Your task to perform on an android device: Open Youtube and go to "Your channel" Image 0: 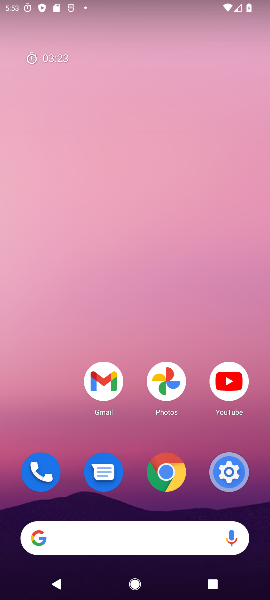
Step 0: press home button
Your task to perform on an android device: Open Youtube and go to "Your channel" Image 1: 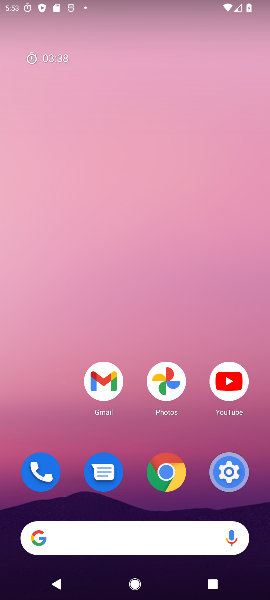
Step 1: press home button
Your task to perform on an android device: Open Youtube and go to "Your channel" Image 2: 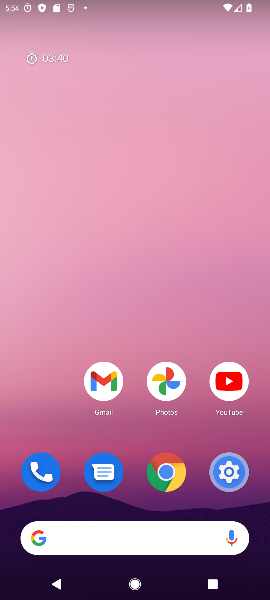
Step 2: click (225, 375)
Your task to perform on an android device: Open Youtube and go to "Your channel" Image 3: 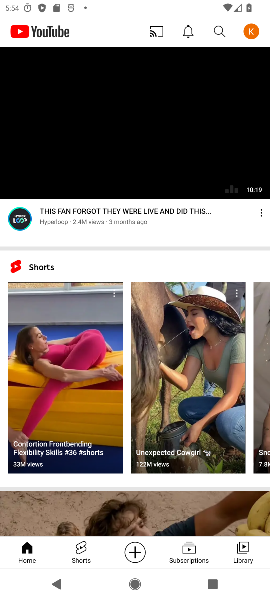
Step 3: click (248, 31)
Your task to perform on an android device: Open Youtube and go to "Your channel" Image 4: 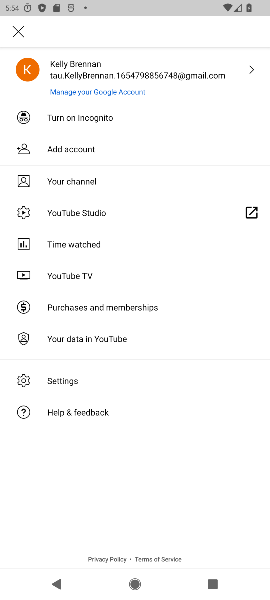
Step 4: click (68, 184)
Your task to perform on an android device: Open Youtube and go to "Your channel" Image 5: 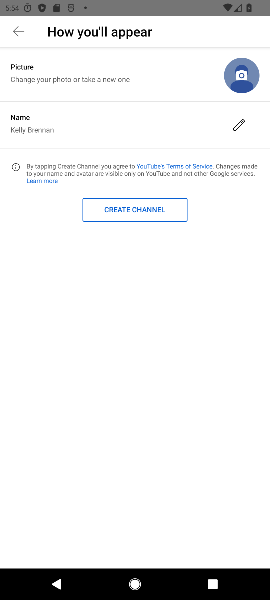
Step 5: task complete